Your task to perform on an android device: set the stopwatch Image 0: 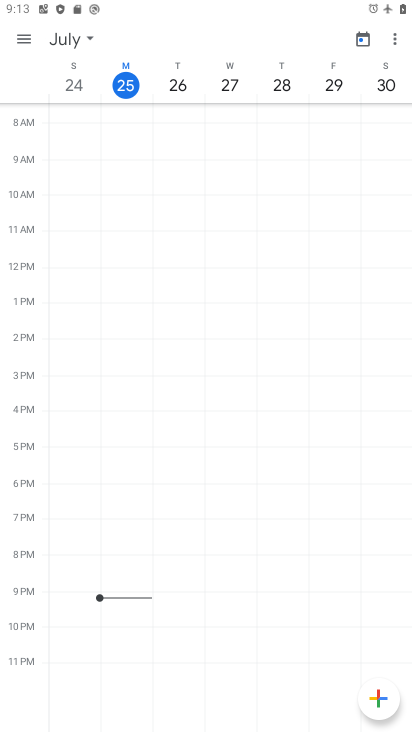
Step 0: press home button
Your task to perform on an android device: set the stopwatch Image 1: 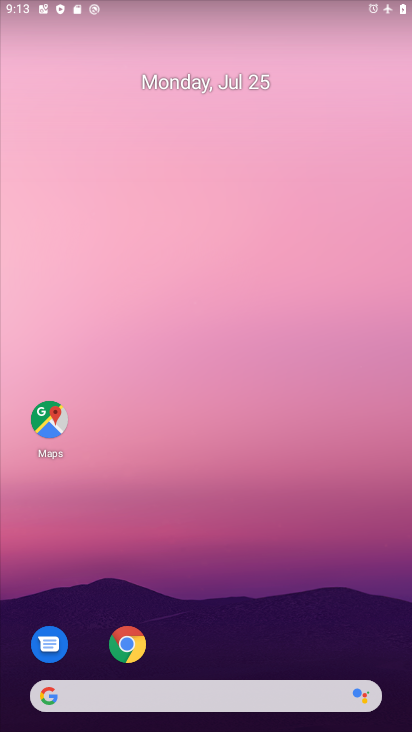
Step 1: drag from (194, 630) to (233, 52)
Your task to perform on an android device: set the stopwatch Image 2: 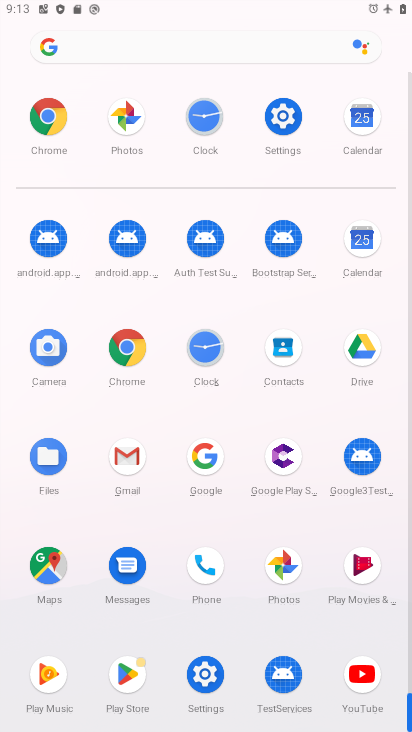
Step 2: click (205, 357)
Your task to perform on an android device: set the stopwatch Image 3: 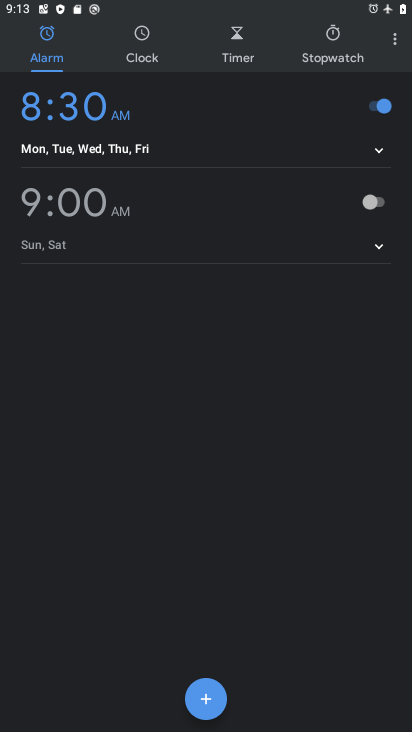
Step 3: click (336, 50)
Your task to perform on an android device: set the stopwatch Image 4: 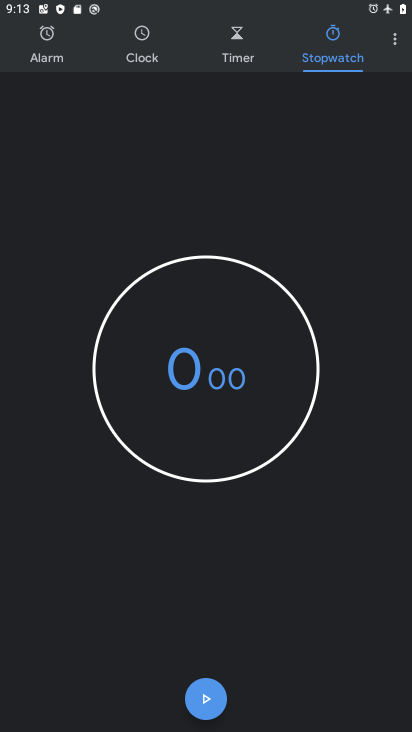
Step 4: click (202, 714)
Your task to perform on an android device: set the stopwatch Image 5: 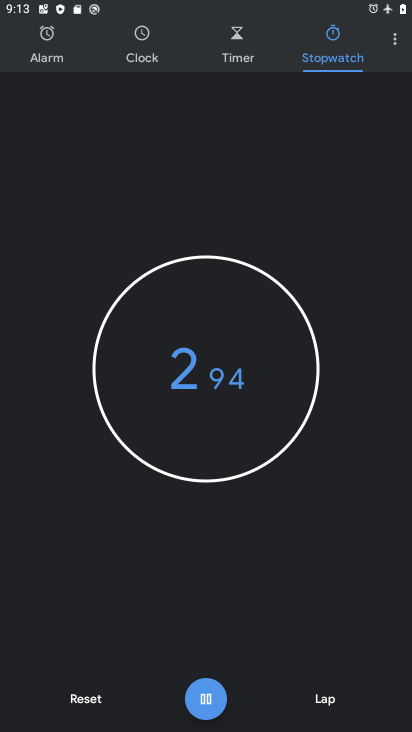
Step 5: task complete